Your task to perform on an android device: add a label to a message in the gmail app Image 0: 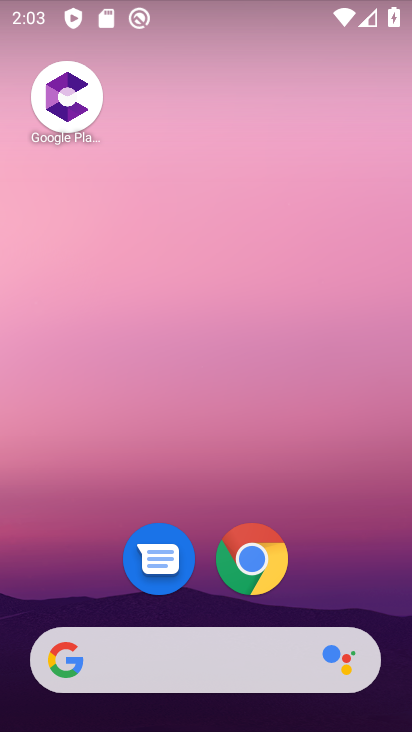
Step 0: drag from (331, 553) to (238, 2)
Your task to perform on an android device: add a label to a message in the gmail app Image 1: 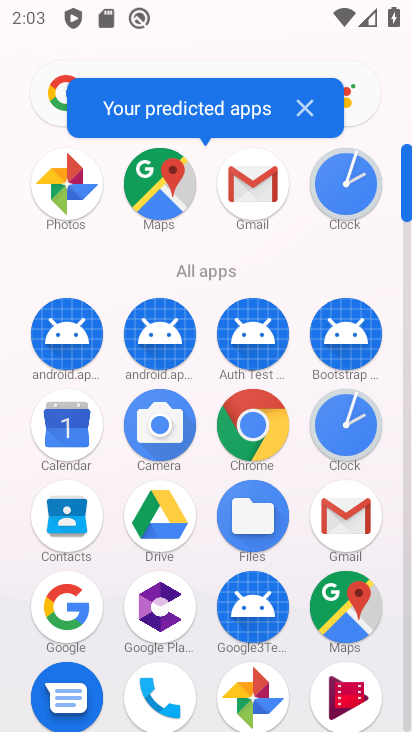
Step 1: click (259, 175)
Your task to perform on an android device: add a label to a message in the gmail app Image 2: 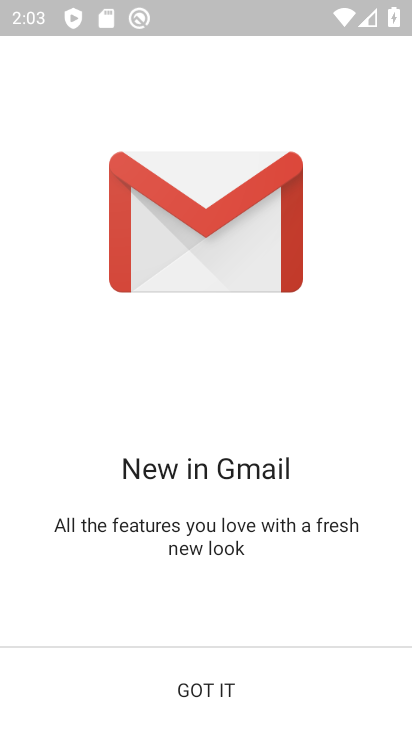
Step 2: click (217, 690)
Your task to perform on an android device: add a label to a message in the gmail app Image 3: 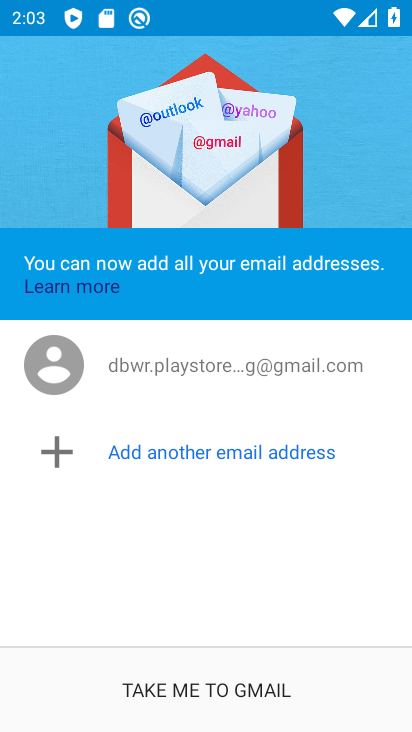
Step 3: click (216, 689)
Your task to perform on an android device: add a label to a message in the gmail app Image 4: 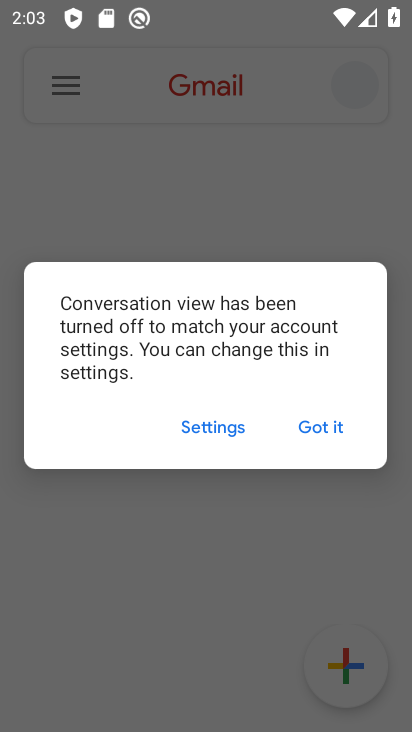
Step 4: click (312, 420)
Your task to perform on an android device: add a label to a message in the gmail app Image 5: 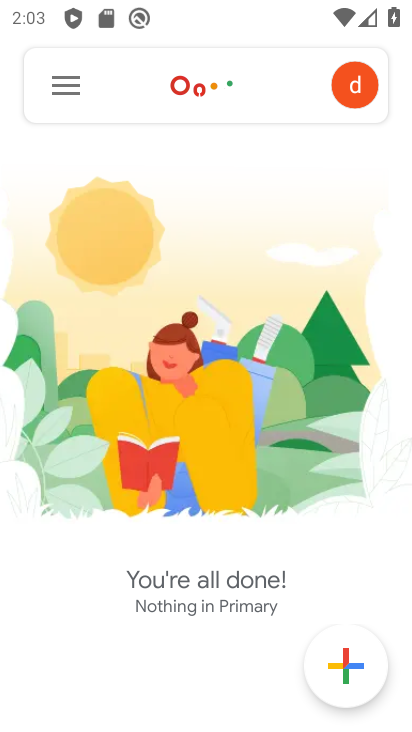
Step 5: click (59, 81)
Your task to perform on an android device: add a label to a message in the gmail app Image 6: 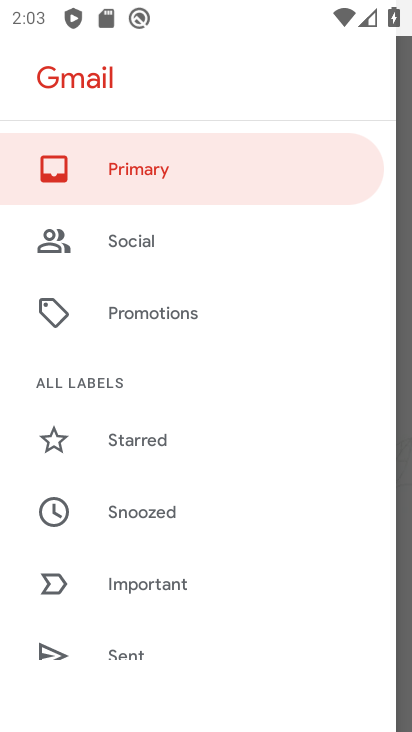
Step 6: drag from (293, 638) to (246, 73)
Your task to perform on an android device: add a label to a message in the gmail app Image 7: 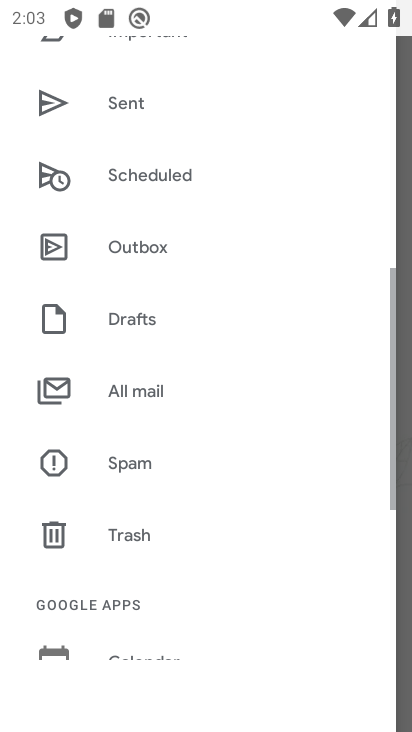
Step 7: drag from (311, 606) to (264, 157)
Your task to perform on an android device: add a label to a message in the gmail app Image 8: 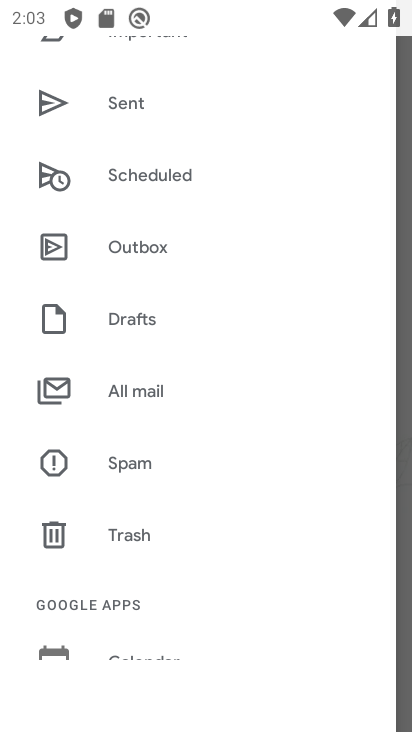
Step 8: drag from (283, 463) to (274, 43)
Your task to perform on an android device: add a label to a message in the gmail app Image 9: 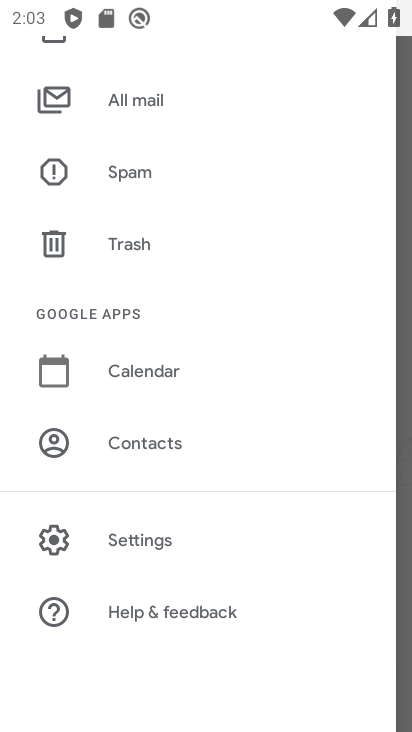
Step 9: click (262, 542)
Your task to perform on an android device: add a label to a message in the gmail app Image 10: 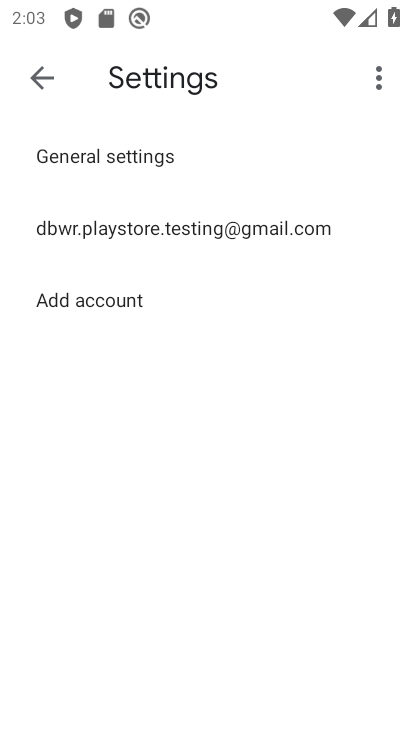
Step 10: click (209, 230)
Your task to perform on an android device: add a label to a message in the gmail app Image 11: 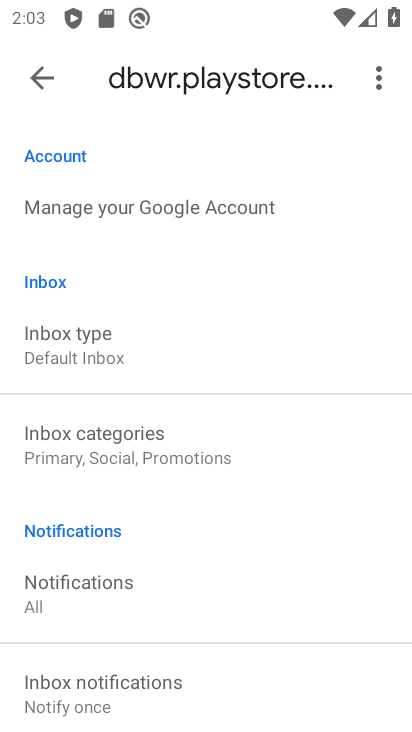
Step 11: task complete